Your task to perform on an android device: check google app version Image 0: 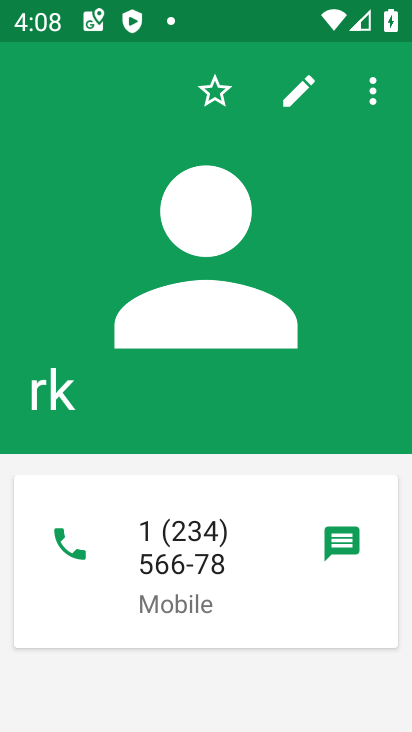
Step 0: press home button
Your task to perform on an android device: check google app version Image 1: 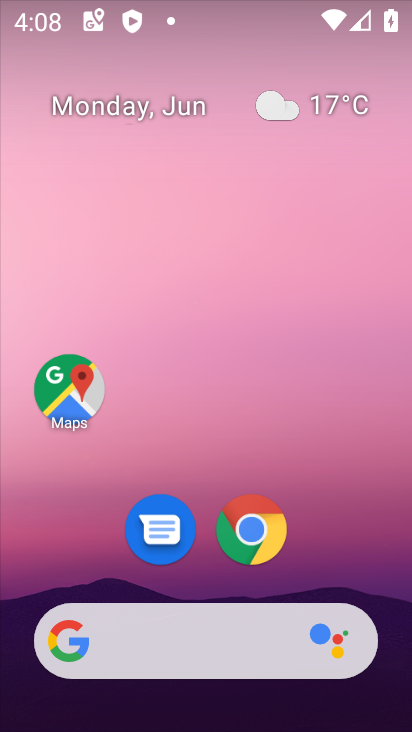
Step 1: drag from (344, 545) to (280, 35)
Your task to perform on an android device: check google app version Image 2: 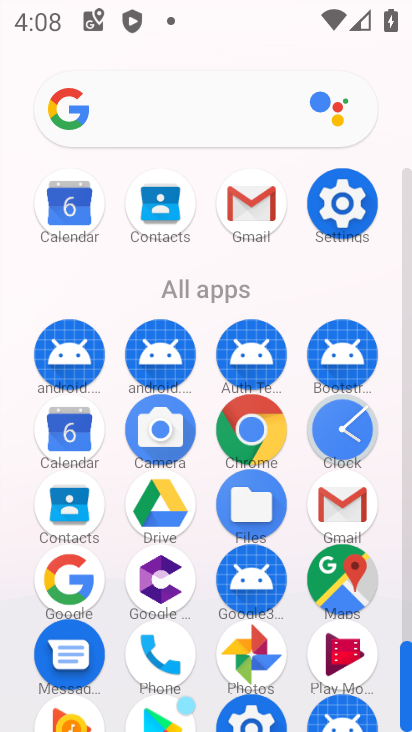
Step 2: click (69, 578)
Your task to perform on an android device: check google app version Image 3: 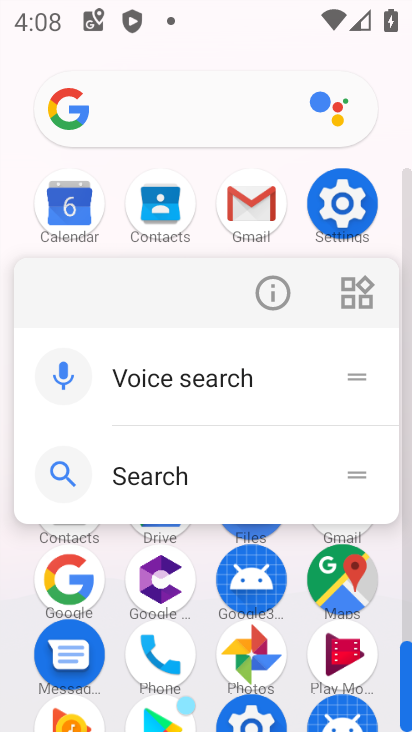
Step 3: click (263, 292)
Your task to perform on an android device: check google app version Image 4: 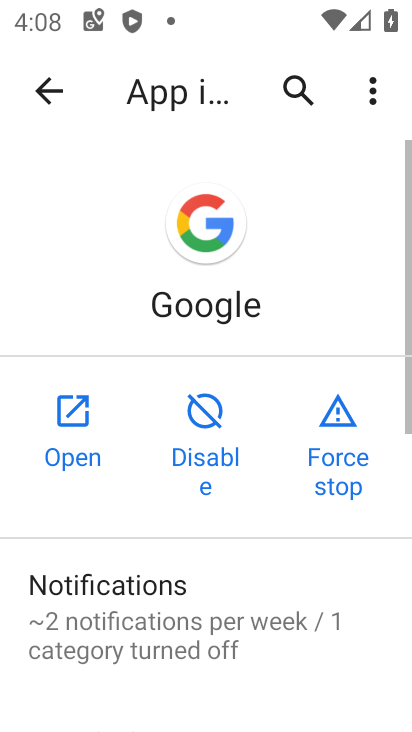
Step 4: drag from (173, 616) to (246, 189)
Your task to perform on an android device: check google app version Image 5: 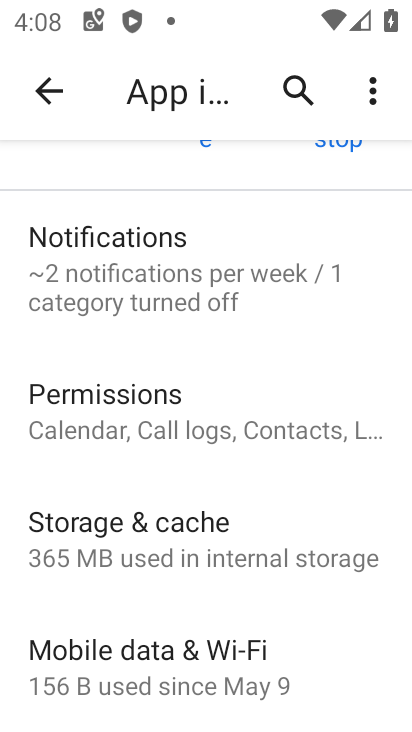
Step 5: drag from (178, 599) to (296, 258)
Your task to perform on an android device: check google app version Image 6: 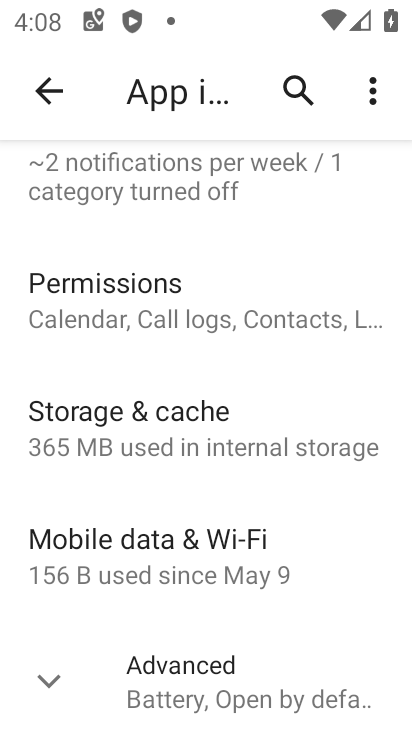
Step 6: click (180, 684)
Your task to perform on an android device: check google app version Image 7: 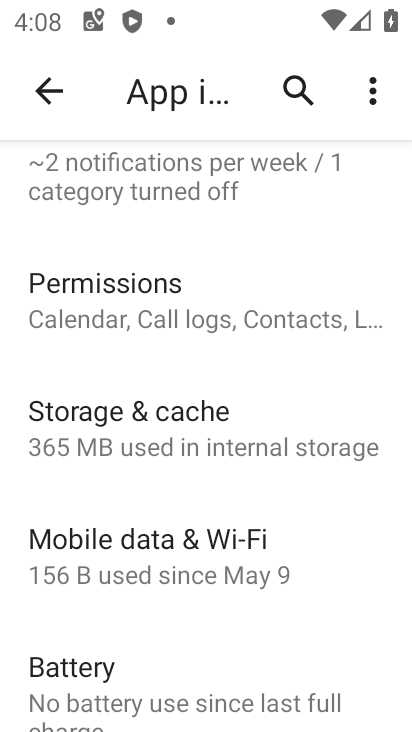
Step 7: task complete